Your task to perform on an android device: What's the weather going to be this weekend? Image 0: 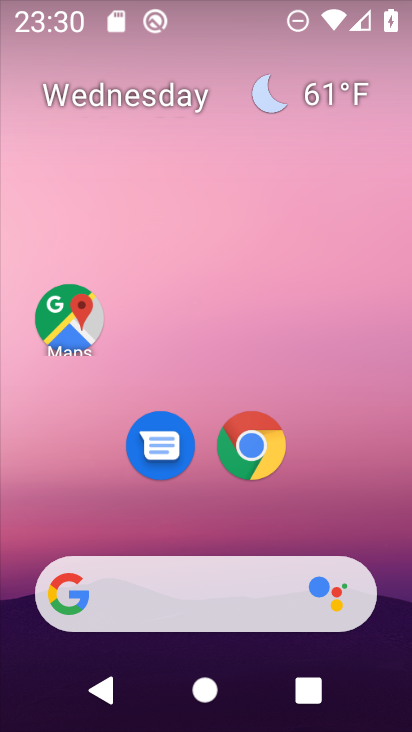
Step 0: drag from (344, 506) to (313, 139)
Your task to perform on an android device: What's the weather going to be this weekend? Image 1: 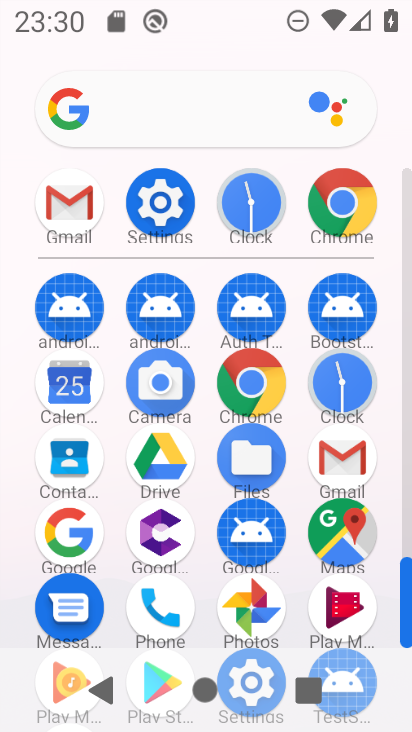
Step 1: click (275, 377)
Your task to perform on an android device: What's the weather going to be this weekend? Image 2: 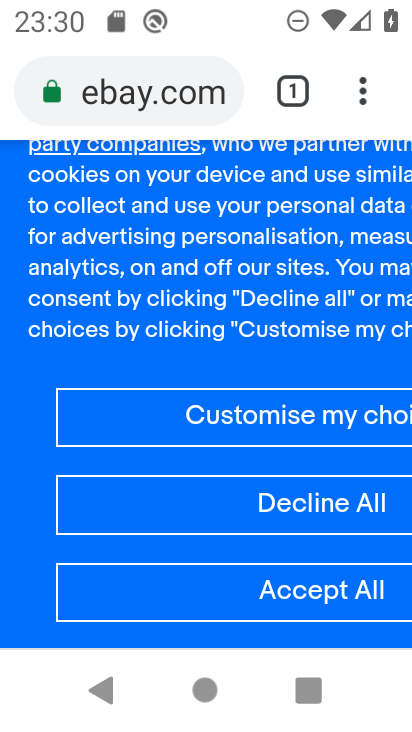
Step 2: click (163, 72)
Your task to perform on an android device: What's the weather going to be this weekend? Image 3: 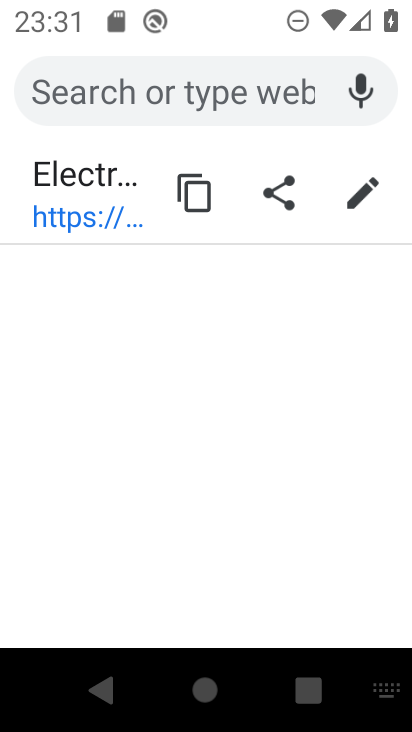
Step 3: type "what's the weather going to be this weekend "
Your task to perform on an android device: What's the weather going to be this weekend? Image 4: 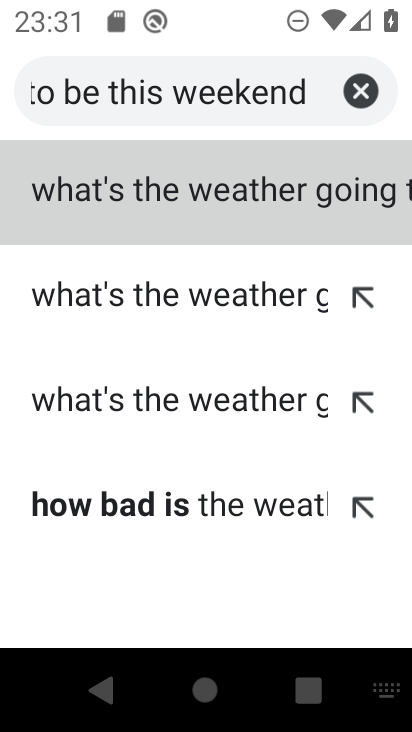
Step 4: click (88, 195)
Your task to perform on an android device: What's the weather going to be this weekend? Image 5: 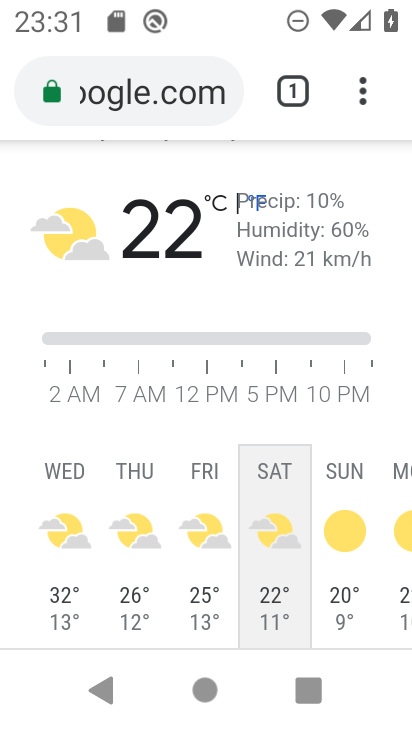
Step 5: task complete